Your task to perform on an android device: turn on showing notifications on the lock screen Image 0: 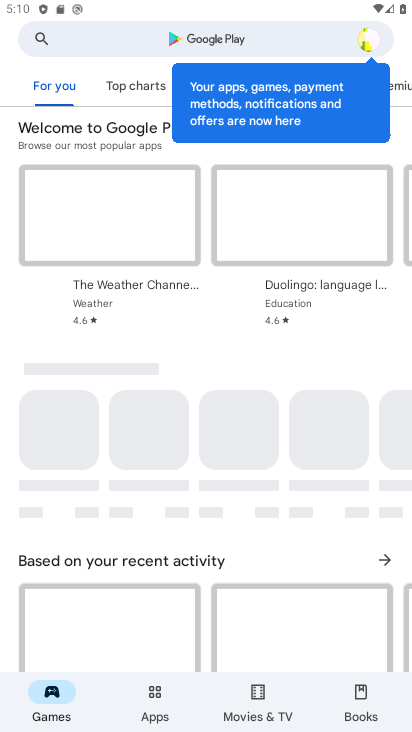
Step 0: press back button
Your task to perform on an android device: turn on showing notifications on the lock screen Image 1: 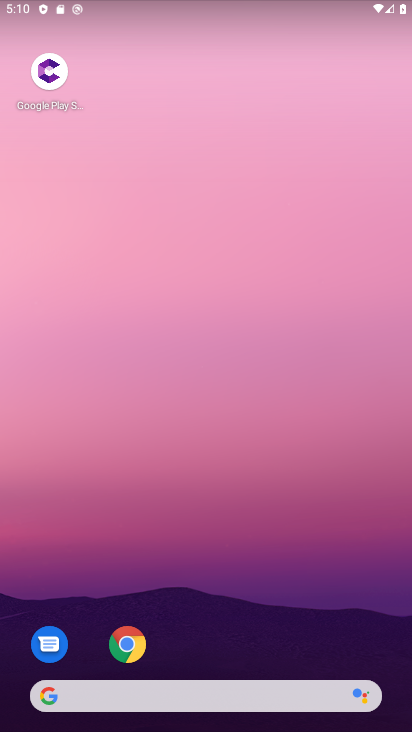
Step 1: drag from (202, 474) to (281, 41)
Your task to perform on an android device: turn on showing notifications on the lock screen Image 2: 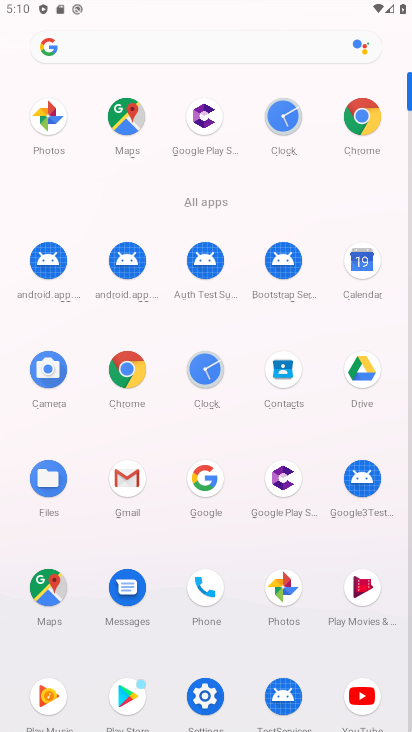
Step 2: click (206, 703)
Your task to perform on an android device: turn on showing notifications on the lock screen Image 3: 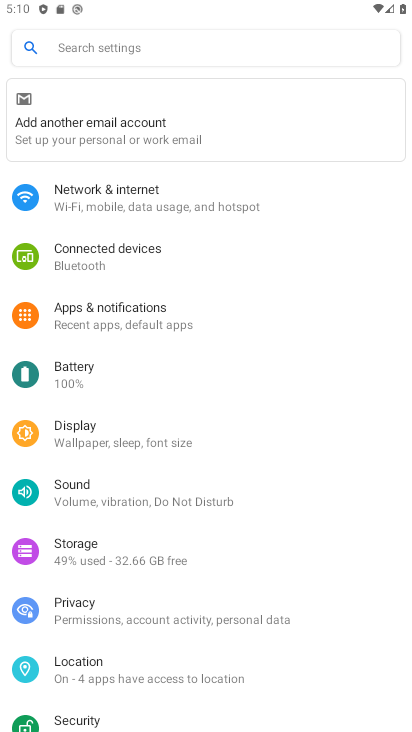
Step 3: click (98, 315)
Your task to perform on an android device: turn on showing notifications on the lock screen Image 4: 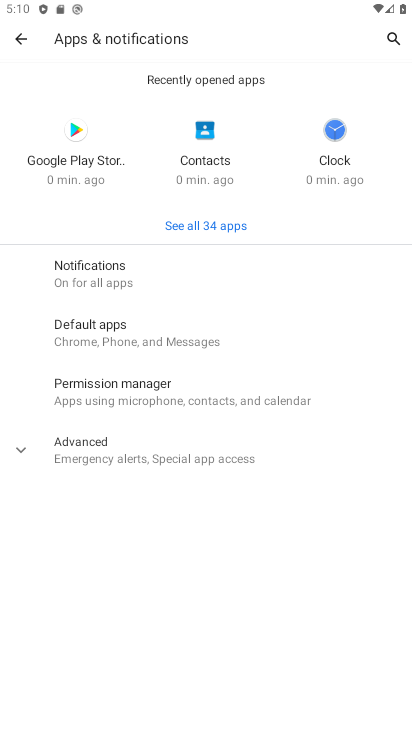
Step 4: click (109, 262)
Your task to perform on an android device: turn on showing notifications on the lock screen Image 5: 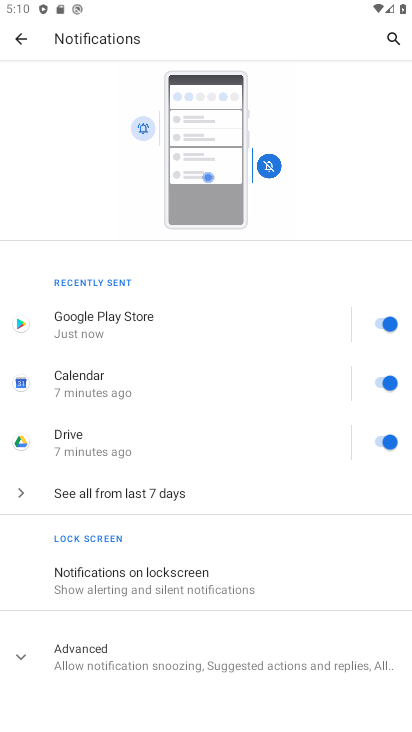
Step 5: click (168, 589)
Your task to perform on an android device: turn on showing notifications on the lock screen Image 6: 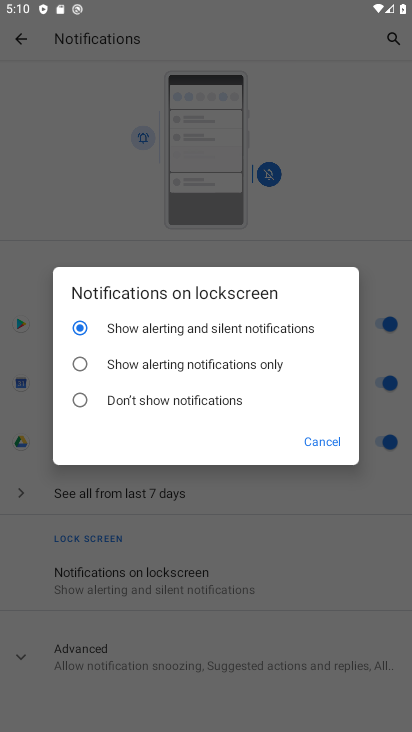
Step 6: task complete